Your task to perform on an android device: Open my contact list Image 0: 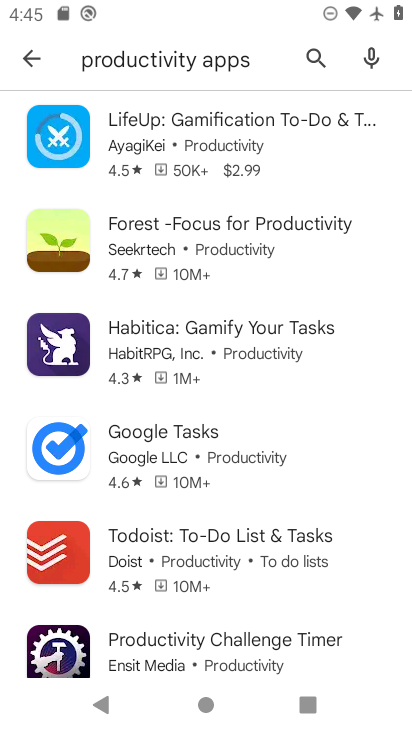
Step 0: press home button
Your task to perform on an android device: Open my contact list Image 1: 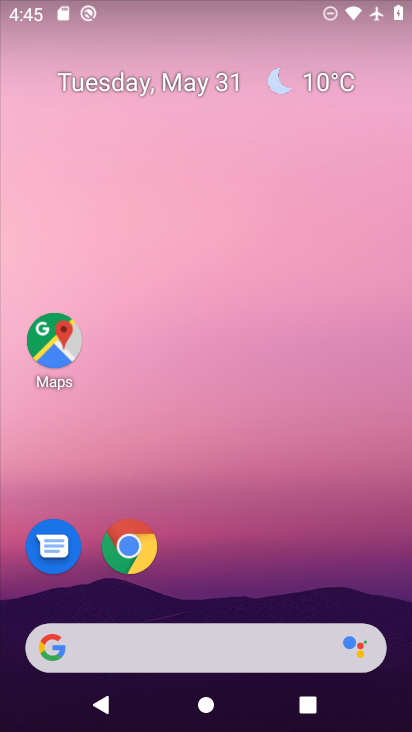
Step 1: drag from (259, 576) to (148, 22)
Your task to perform on an android device: Open my contact list Image 2: 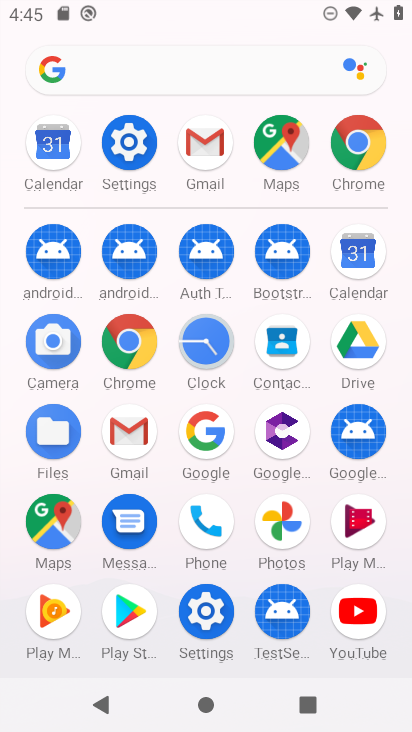
Step 2: click (284, 346)
Your task to perform on an android device: Open my contact list Image 3: 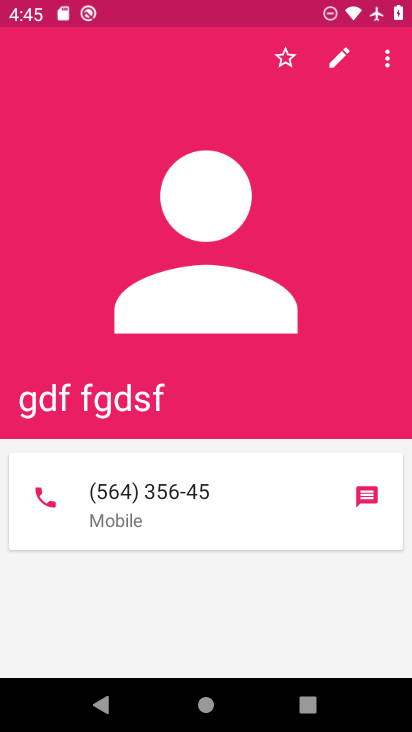
Step 3: task complete